Your task to perform on an android device: turn smart compose on in the gmail app Image 0: 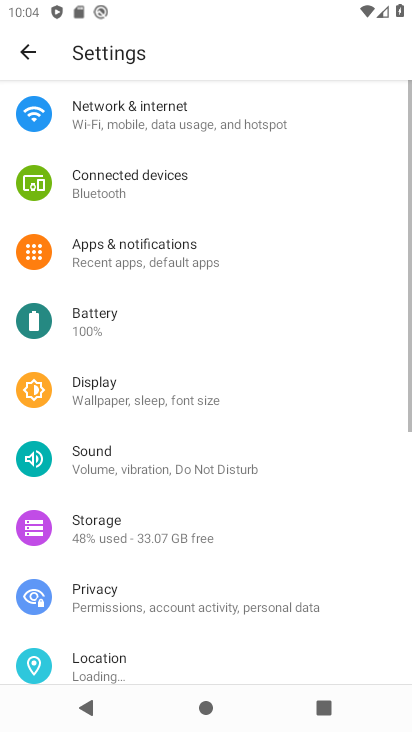
Step 0: press home button
Your task to perform on an android device: turn smart compose on in the gmail app Image 1: 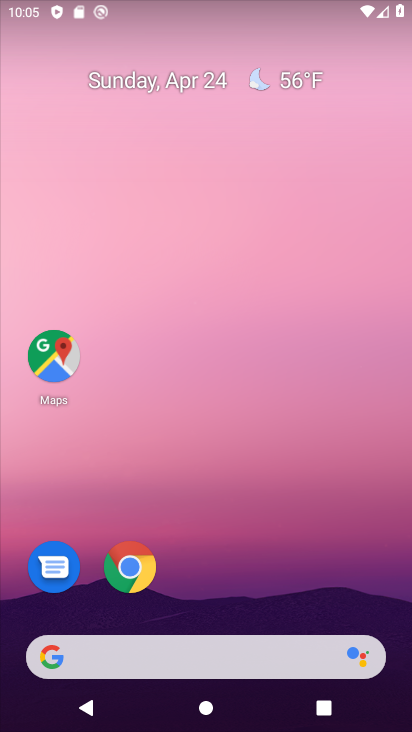
Step 1: drag from (250, 628) to (390, 62)
Your task to perform on an android device: turn smart compose on in the gmail app Image 2: 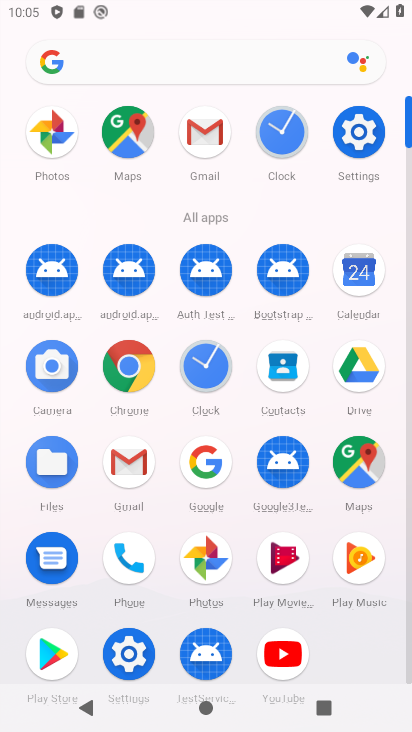
Step 2: click (212, 135)
Your task to perform on an android device: turn smart compose on in the gmail app Image 3: 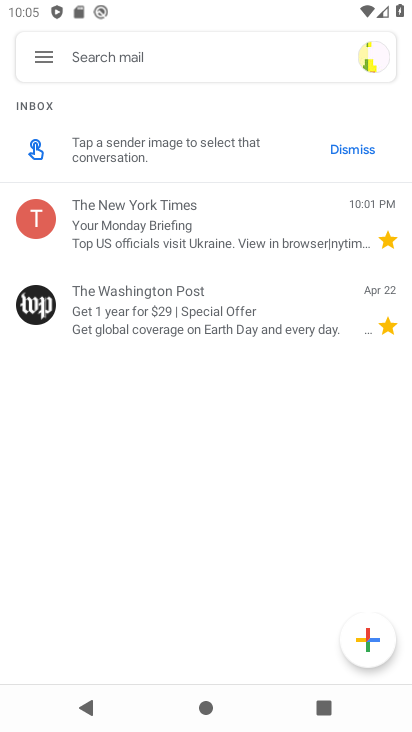
Step 3: click (46, 54)
Your task to perform on an android device: turn smart compose on in the gmail app Image 4: 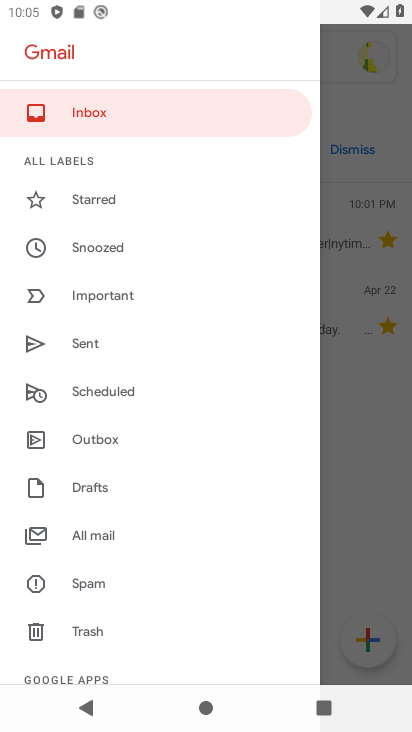
Step 4: drag from (129, 596) to (271, 192)
Your task to perform on an android device: turn smart compose on in the gmail app Image 5: 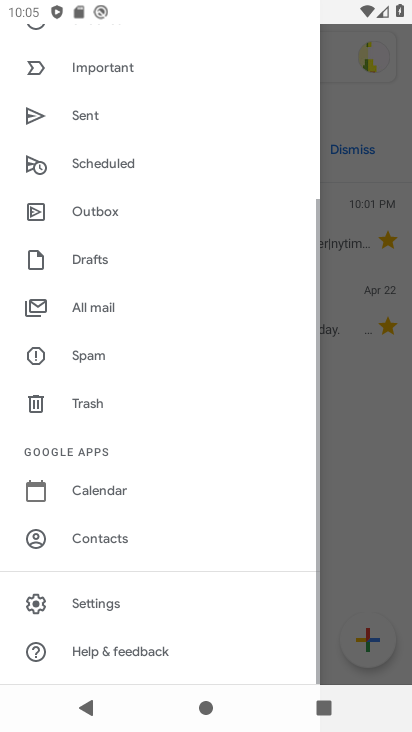
Step 5: click (110, 607)
Your task to perform on an android device: turn smart compose on in the gmail app Image 6: 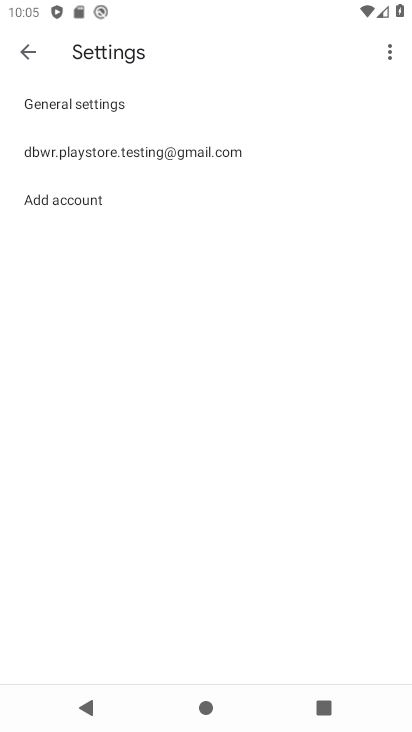
Step 6: click (182, 152)
Your task to perform on an android device: turn smart compose on in the gmail app Image 7: 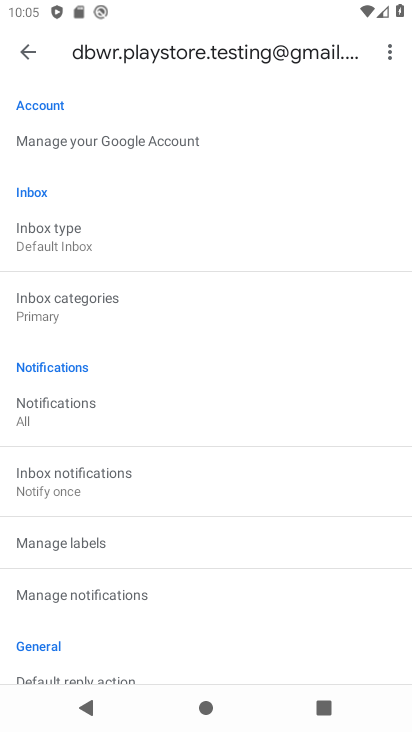
Step 7: task complete